Your task to perform on an android device: What's the weather? Image 0: 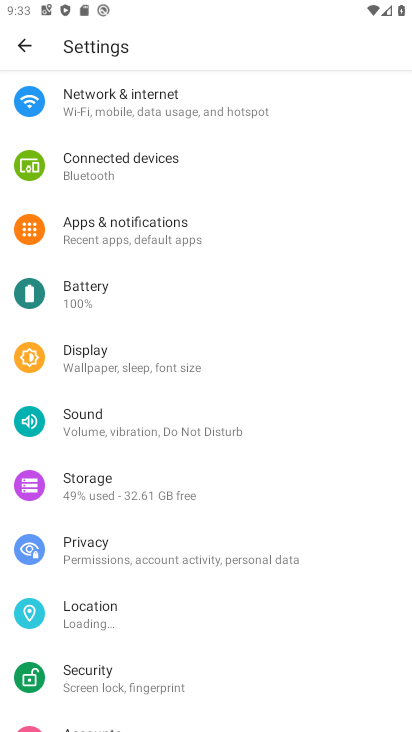
Step 0: press home button
Your task to perform on an android device: What's the weather? Image 1: 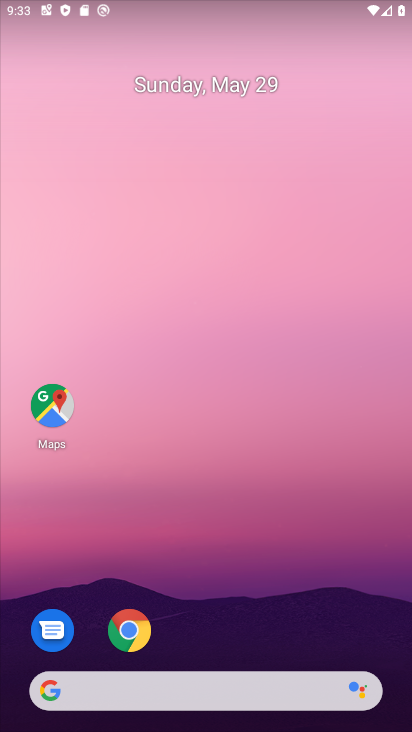
Step 1: drag from (8, 115) to (411, 134)
Your task to perform on an android device: What's the weather? Image 2: 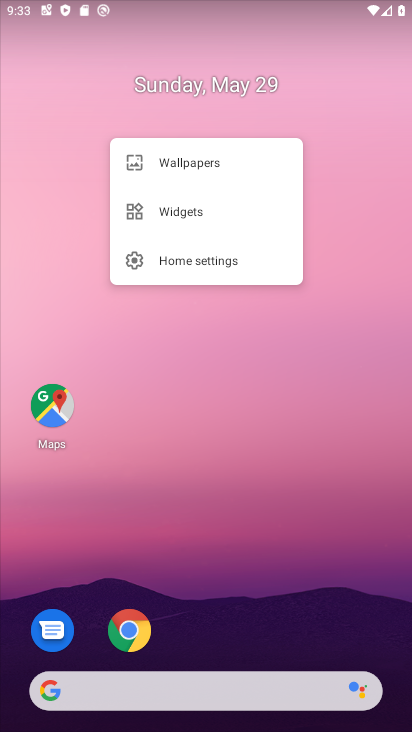
Step 2: drag from (5, 146) to (381, 146)
Your task to perform on an android device: What's the weather? Image 3: 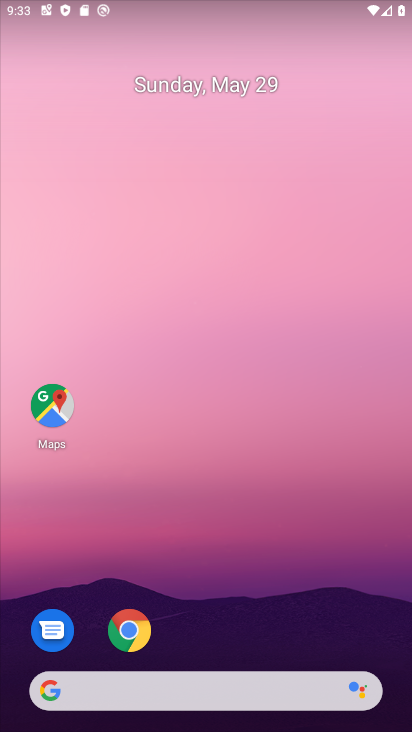
Step 3: drag from (0, 127) to (158, 81)
Your task to perform on an android device: What's the weather? Image 4: 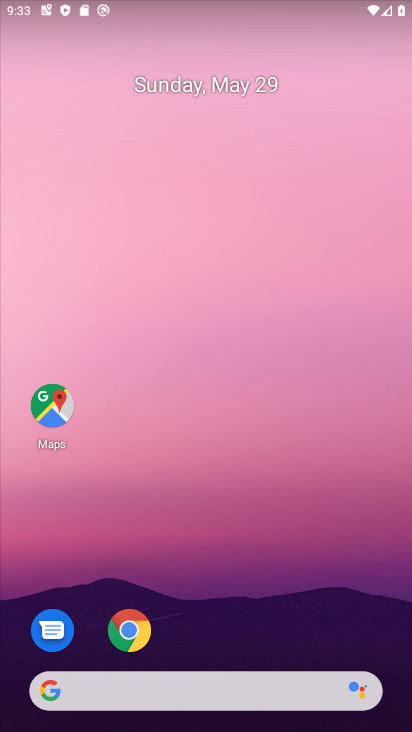
Step 4: drag from (11, 83) to (404, 79)
Your task to perform on an android device: What's the weather? Image 5: 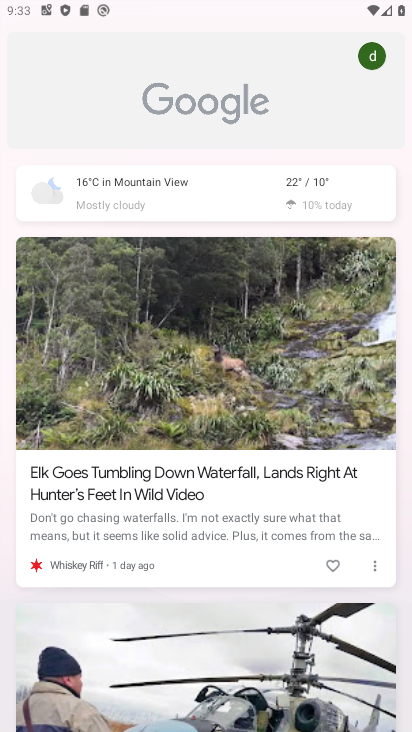
Step 5: click (296, 204)
Your task to perform on an android device: What's the weather? Image 6: 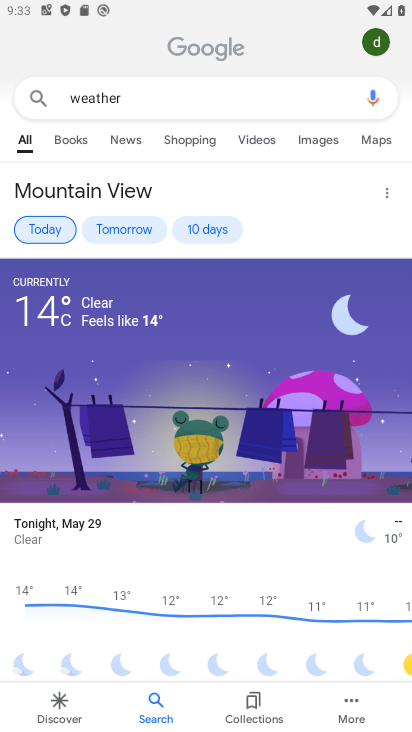
Step 6: task complete